Your task to perform on an android device: open app "Roku - Official Remote Control" Image 0: 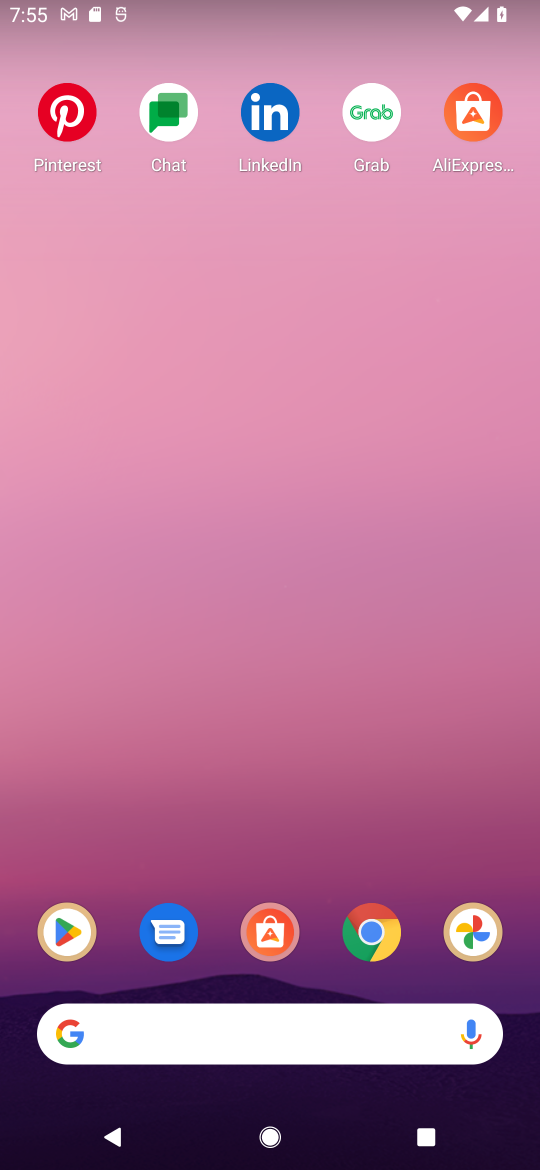
Step 0: click (71, 938)
Your task to perform on an android device: open app "Roku - Official Remote Control" Image 1: 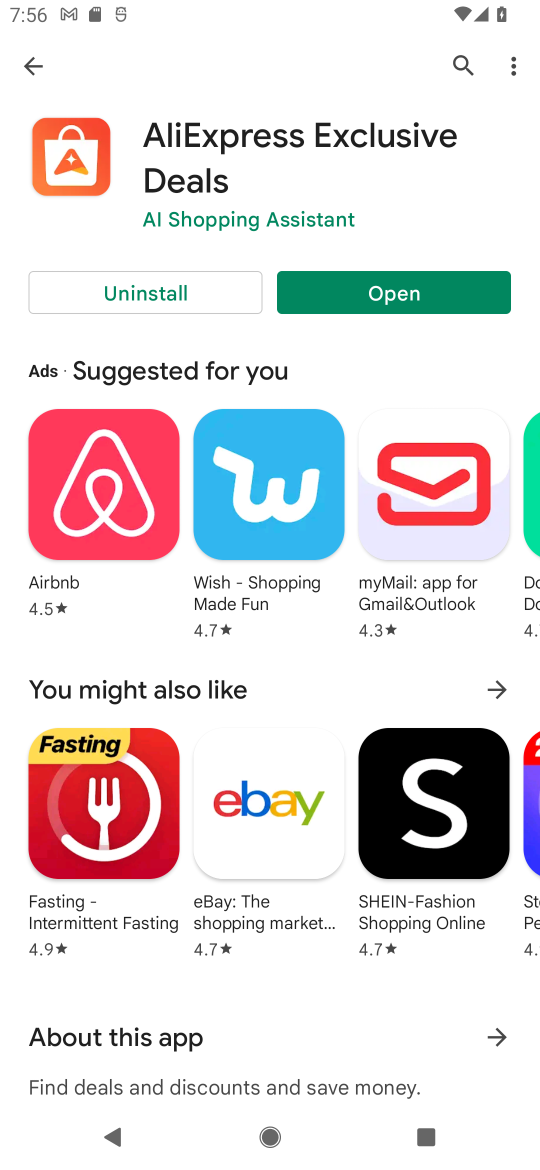
Step 1: click (31, 72)
Your task to perform on an android device: open app "Roku - Official Remote Control" Image 2: 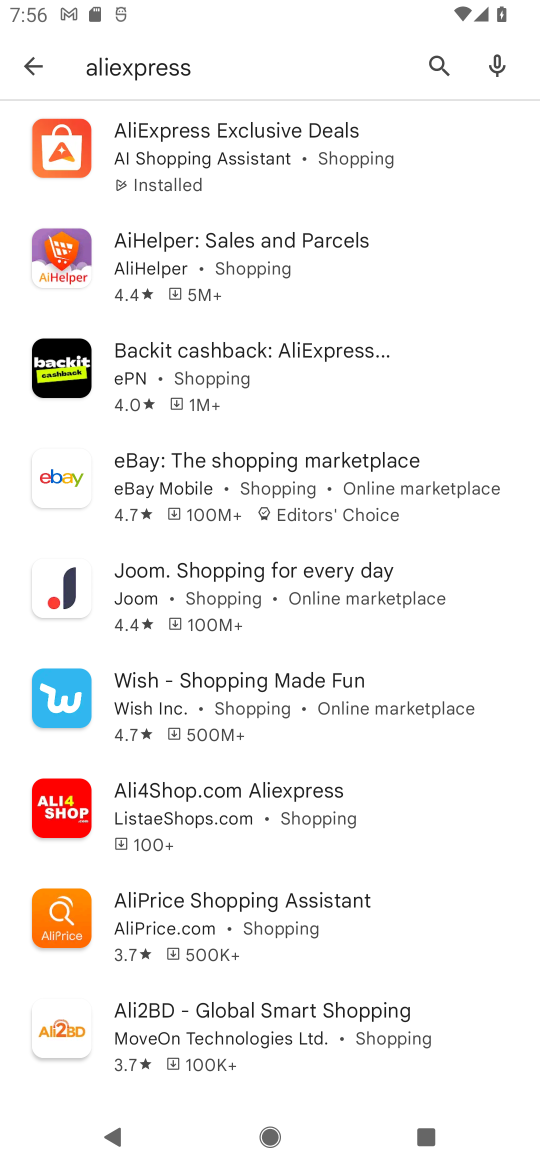
Step 2: click (191, 60)
Your task to perform on an android device: open app "Roku - Official Remote Control" Image 3: 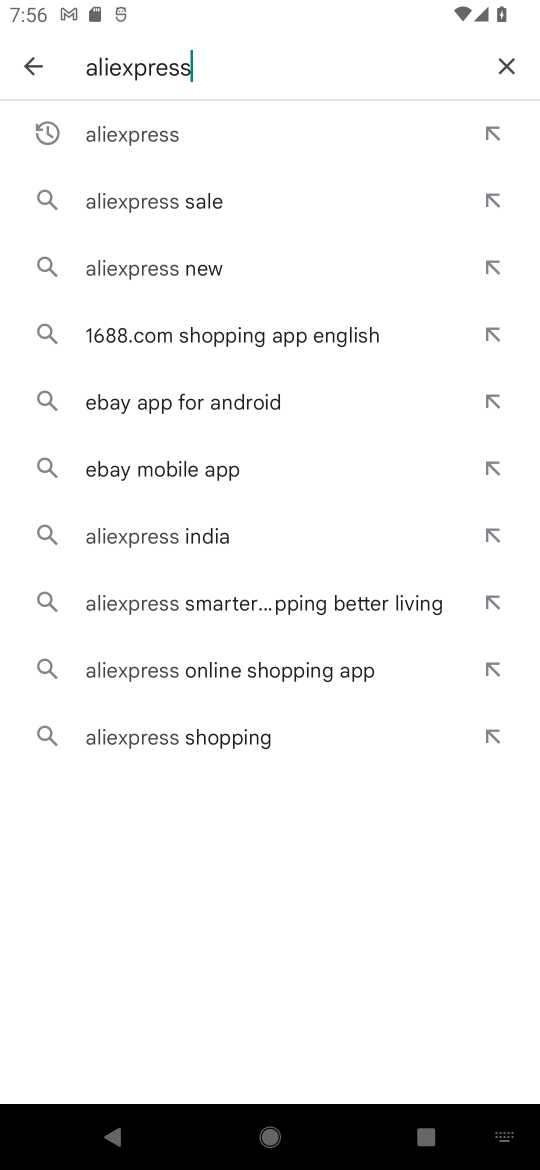
Step 3: click (503, 64)
Your task to perform on an android device: open app "Roku - Official Remote Control" Image 4: 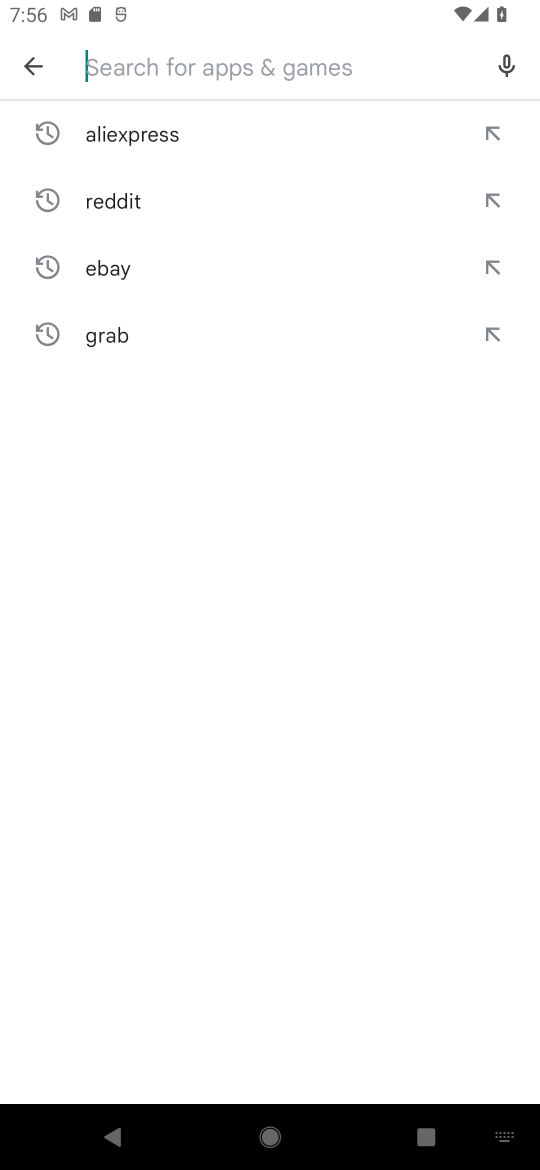
Step 4: type "Roku"
Your task to perform on an android device: open app "Roku - Official Remote Control" Image 5: 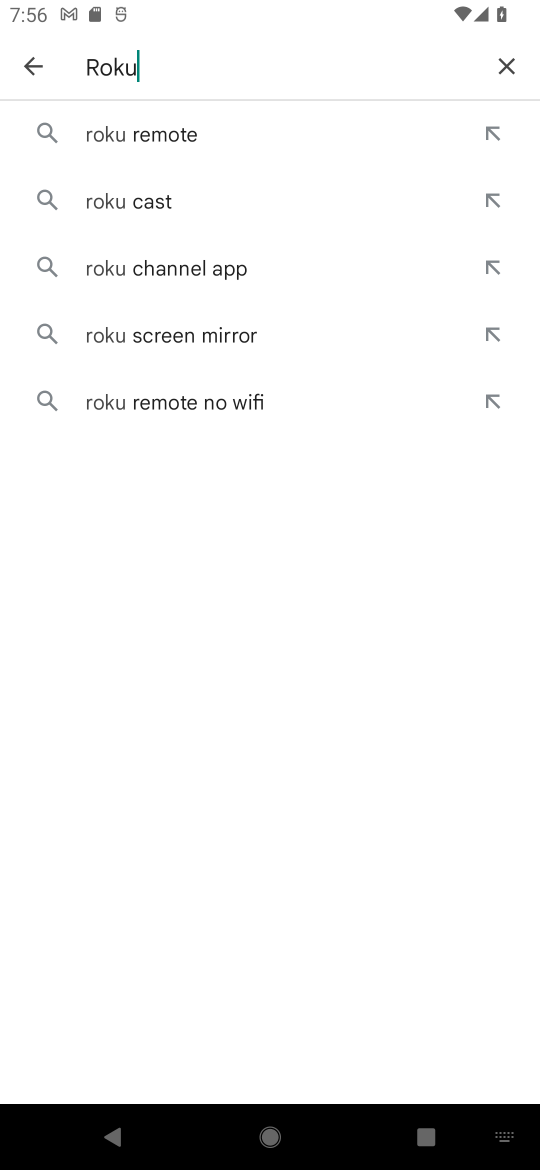
Step 5: click (138, 138)
Your task to perform on an android device: open app "Roku - Official Remote Control" Image 6: 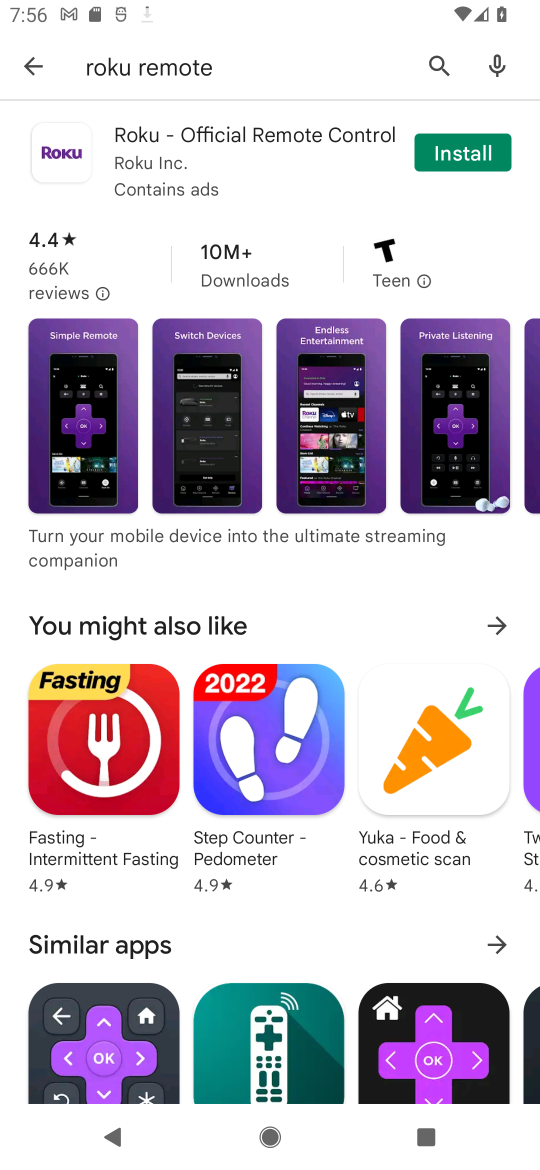
Step 6: task complete